Your task to perform on an android device: check the backup settings in the google photos Image 0: 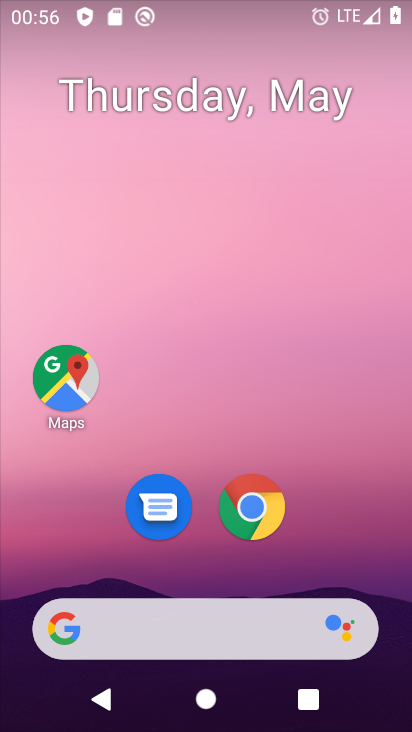
Step 0: drag from (216, 579) to (295, 202)
Your task to perform on an android device: check the backup settings in the google photos Image 1: 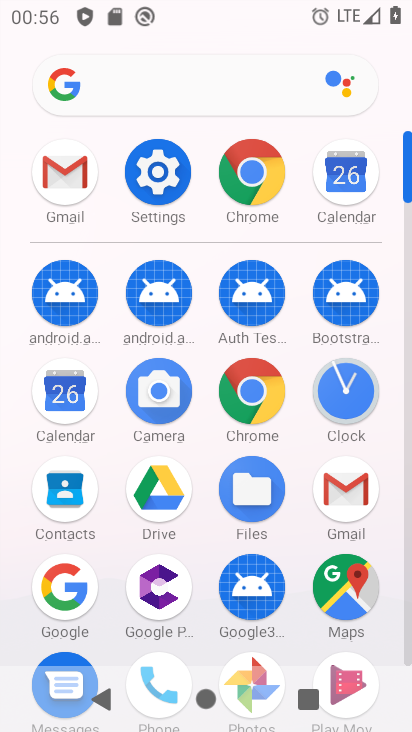
Step 1: drag from (209, 586) to (232, 384)
Your task to perform on an android device: check the backup settings in the google photos Image 2: 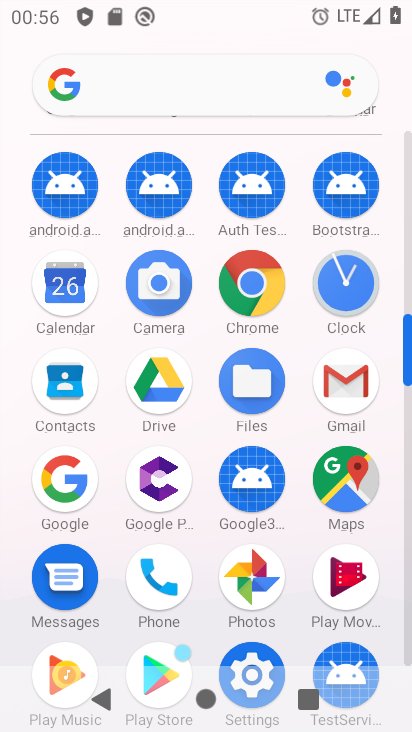
Step 2: click (261, 557)
Your task to perform on an android device: check the backup settings in the google photos Image 3: 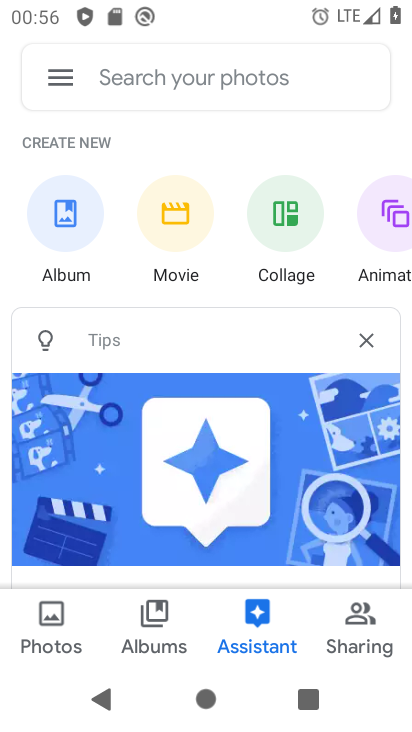
Step 3: click (70, 77)
Your task to perform on an android device: check the backup settings in the google photos Image 4: 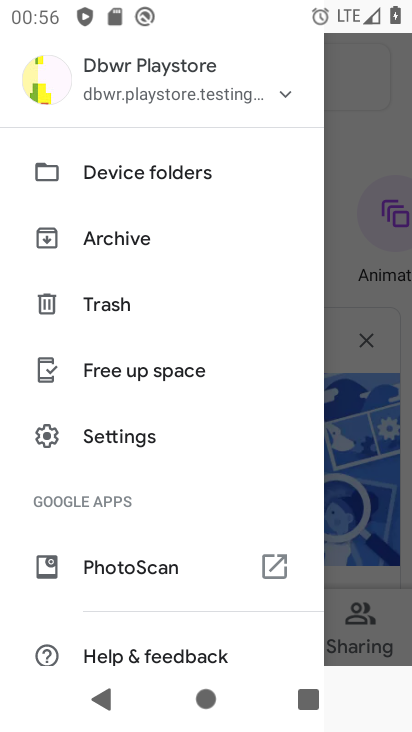
Step 4: drag from (152, 603) to (179, 349)
Your task to perform on an android device: check the backup settings in the google photos Image 5: 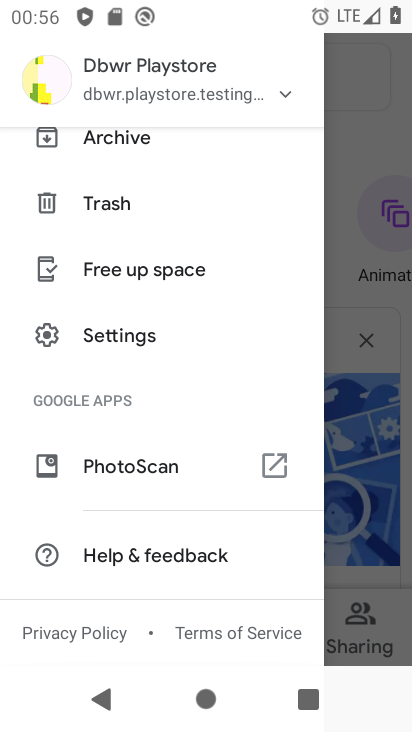
Step 5: click (133, 335)
Your task to perform on an android device: check the backup settings in the google photos Image 6: 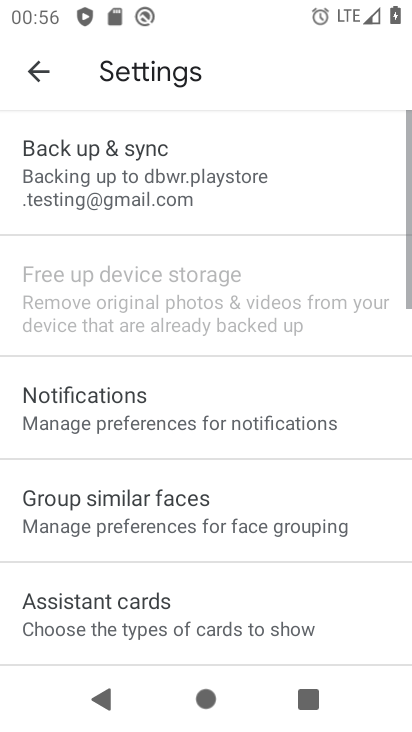
Step 6: click (175, 165)
Your task to perform on an android device: check the backup settings in the google photos Image 7: 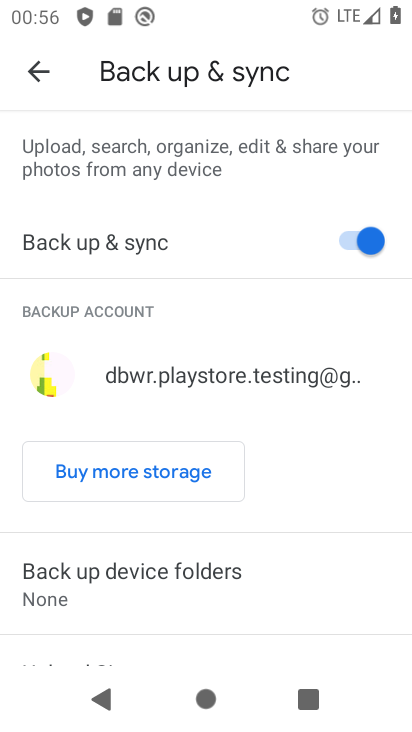
Step 7: task complete